Your task to perform on an android device: turn off improve location accuracy Image 0: 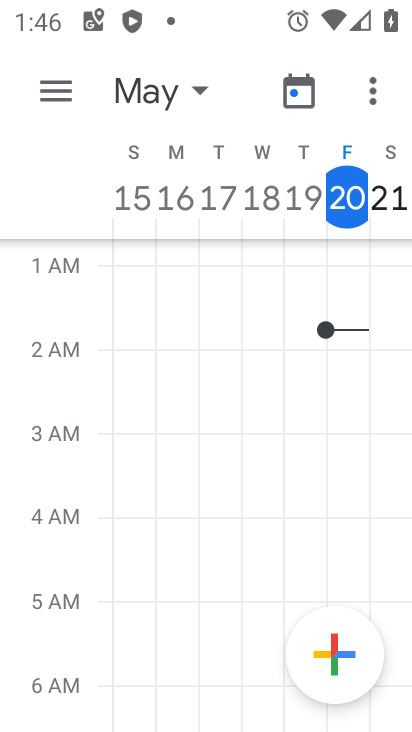
Step 0: press home button
Your task to perform on an android device: turn off improve location accuracy Image 1: 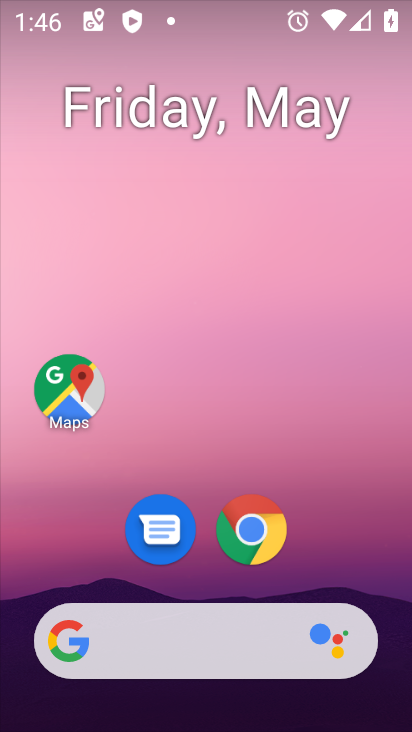
Step 1: click (380, 227)
Your task to perform on an android device: turn off improve location accuracy Image 2: 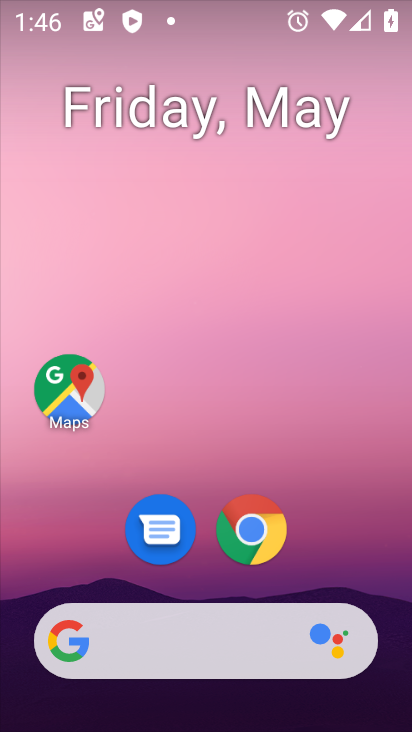
Step 2: drag from (396, 683) to (356, 243)
Your task to perform on an android device: turn off improve location accuracy Image 3: 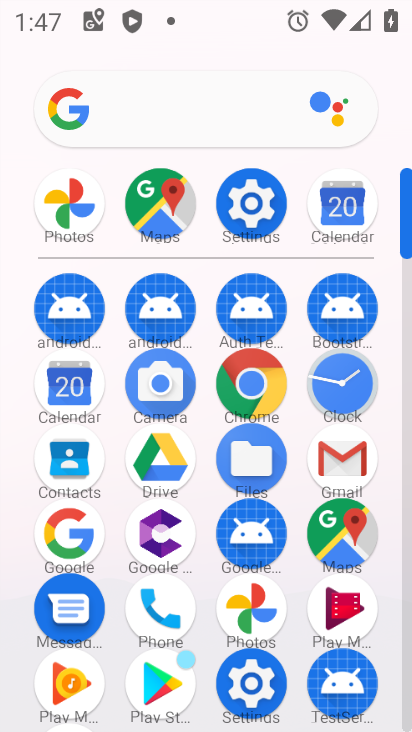
Step 3: click (245, 681)
Your task to perform on an android device: turn off improve location accuracy Image 4: 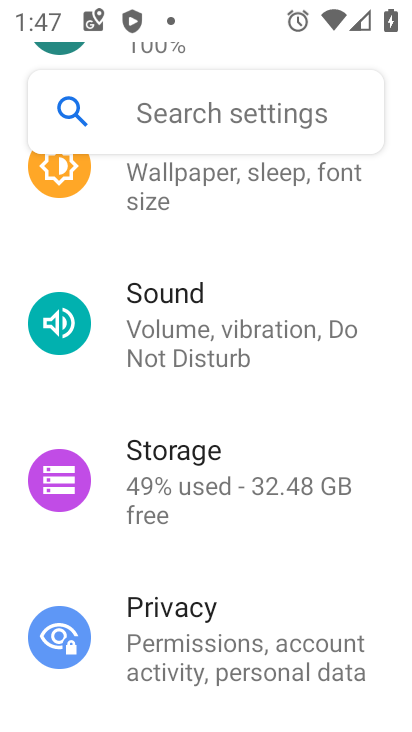
Step 4: drag from (337, 696) to (345, 271)
Your task to perform on an android device: turn off improve location accuracy Image 5: 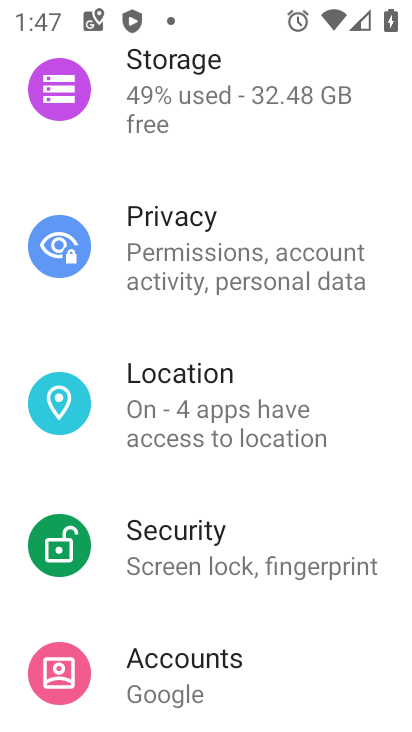
Step 5: drag from (294, 693) to (278, 424)
Your task to perform on an android device: turn off improve location accuracy Image 6: 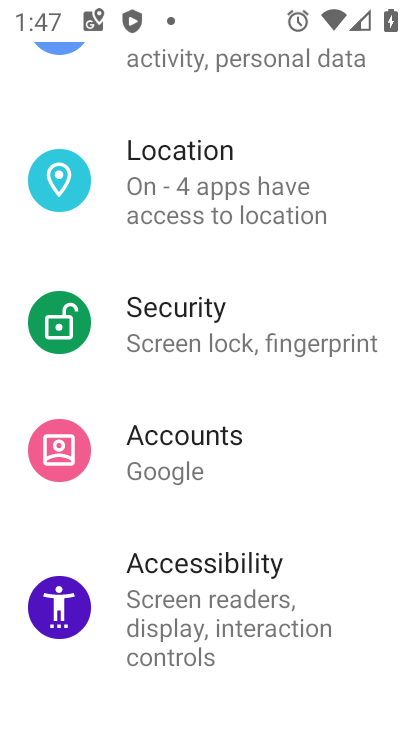
Step 6: drag from (319, 503) to (320, 416)
Your task to perform on an android device: turn off improve location accuracy Image 7: 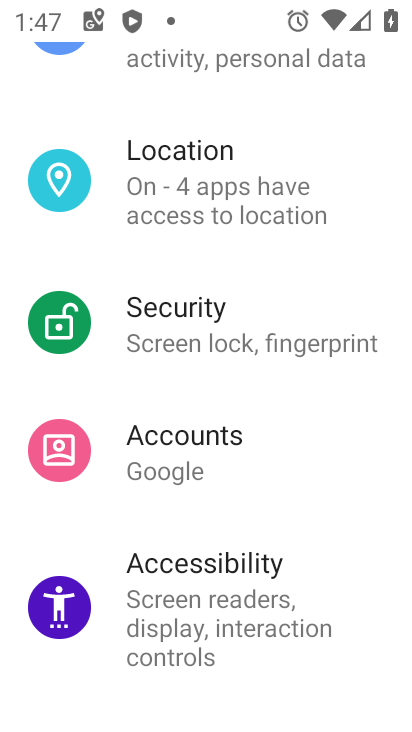
Step 7: click (205, 189)
Your task to perform on an android device: turn off improve location accuracy Image 8: 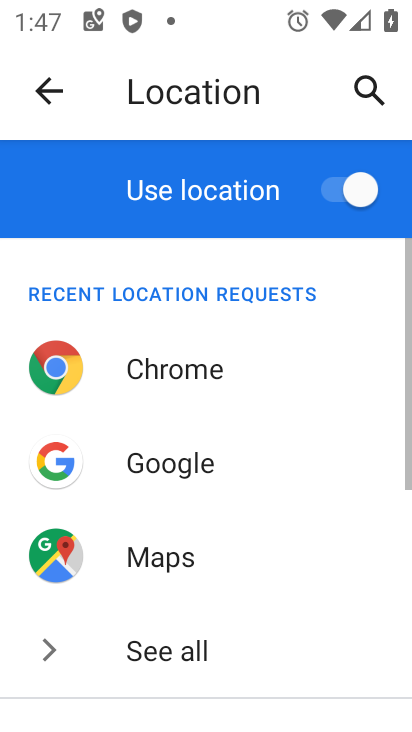
Step 8: drag from (297, 679) to (291, 294)
Your task to perform on an android device: turn off improve location accuracy Image 9: 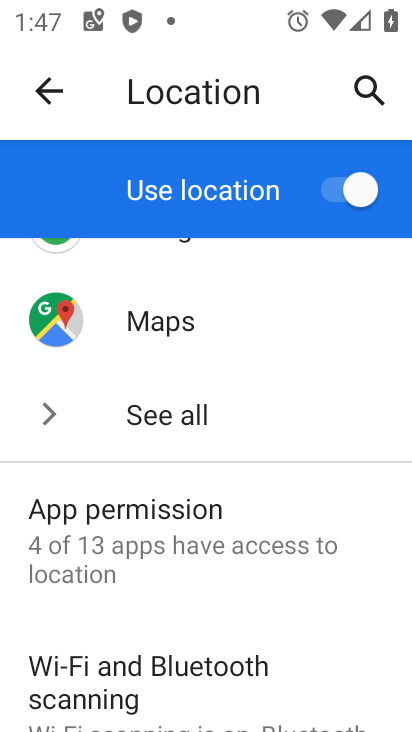
Step 9: drag from (290, 704) to (254, 177)
Your task to perform on an android device: turn off improve location accuracy Image 10: 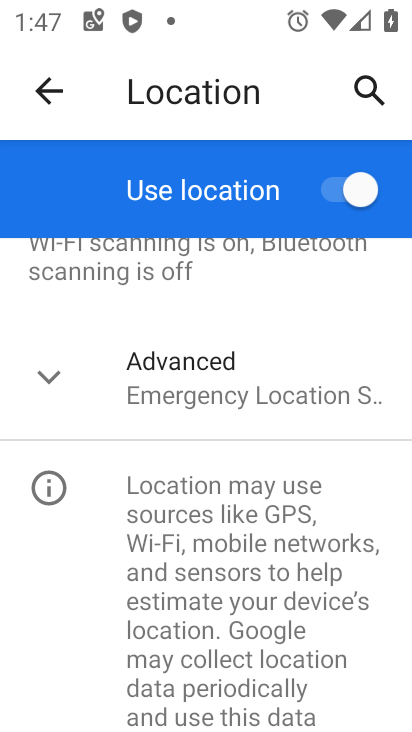
Step 10: click (49, 367)
Your task to perform on an android device: turn off improve location accuracy Image 11: 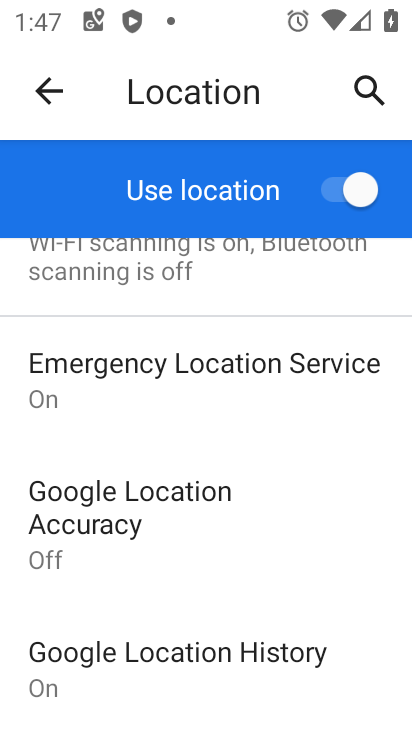
Step 11: task complete